Your task to perform on an android device: Search for vegetarian restaurants on Maps Image 0: 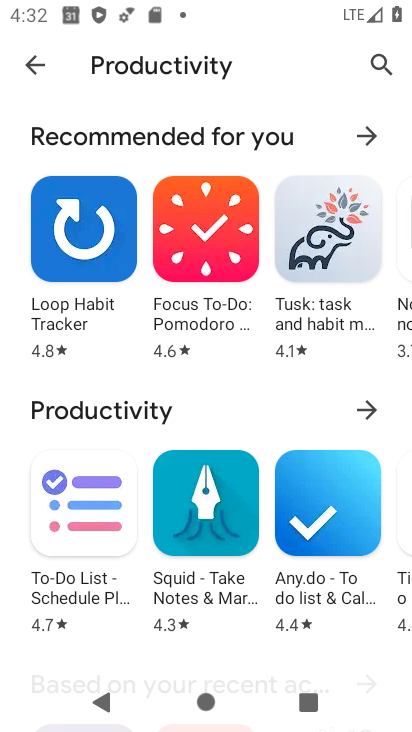
Step 0: press back button
Your task to perform on an android device: Search for vegetarian restaurants on Maps Image 1: 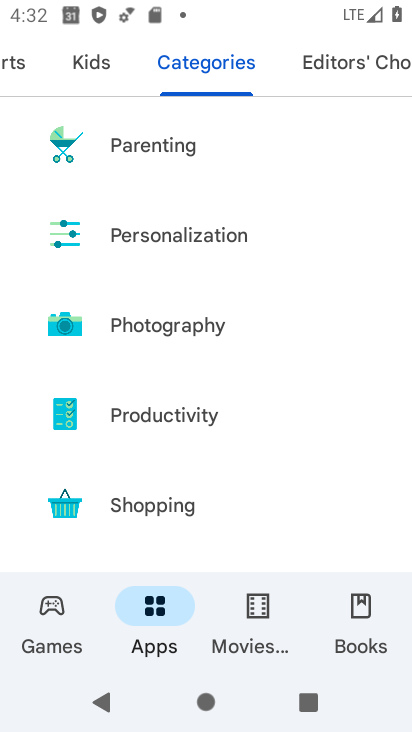
Step 1: press back button
Your task to perform on an android device: Search for vegetarian restaurants on Maps Image 2: 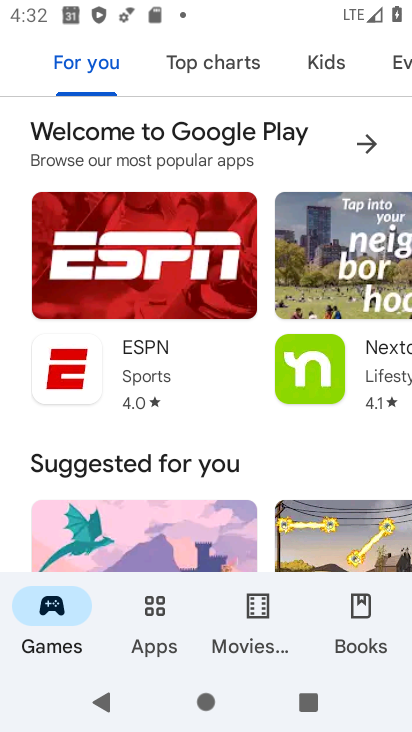
Step 2: press back button
Your task to perform on an android device: Search for vegetarian restaurants on Maps Image 3: 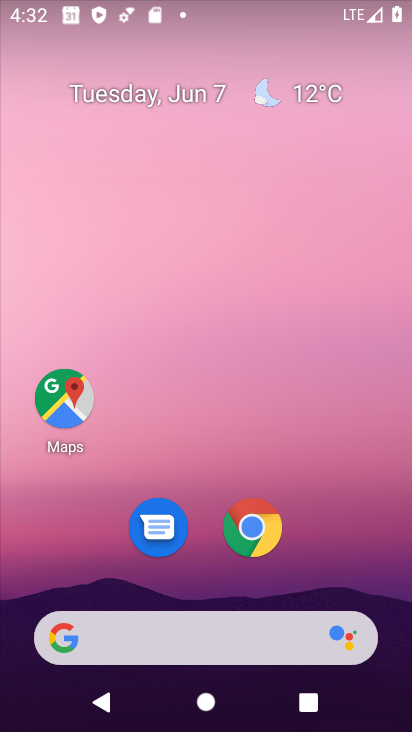
Step 3: click (63, 396)
Your task to perform on an android device: Search for vegetarian restaurants on Maps Image 4: 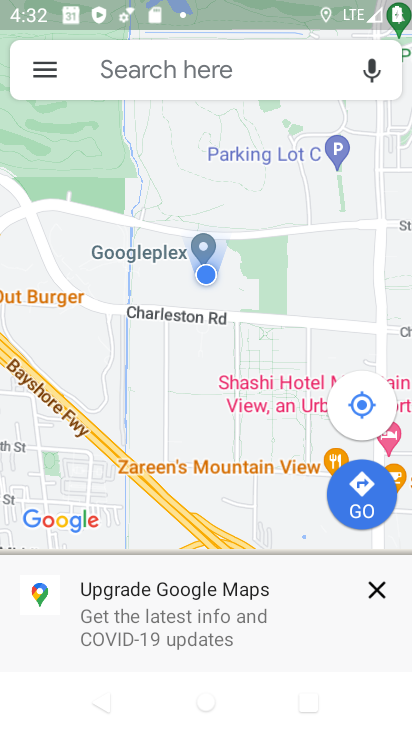
Step 4: click (153, 64)
Your task to perform on an android device: Search for vegetarian restaurants on Maps Image 5: 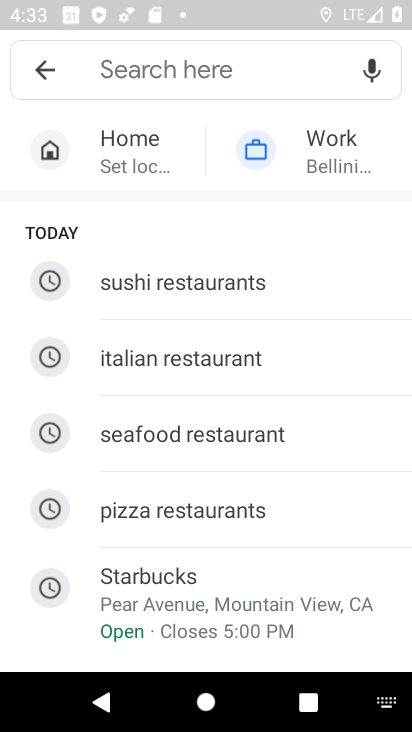
Step 5: type "vegitarian restaurants"
Your task to perform on an android device: Search for vegetarian restaurants on Maps Image 6: 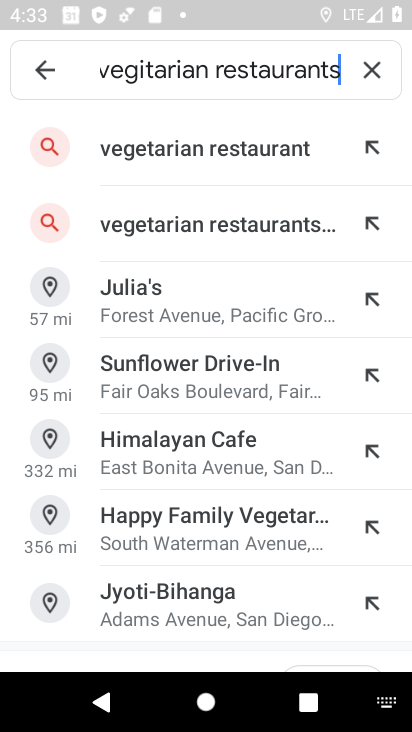
Step 6: click (177, 154)
Your task to perform on an android device: Search for vegetarian restaurants on Maps Image 7: 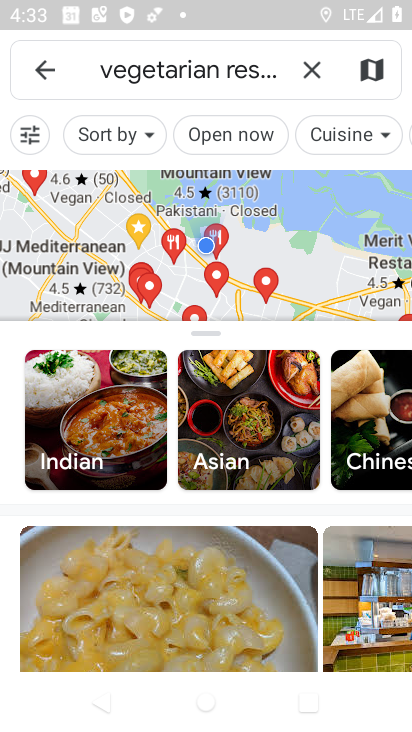
Step 7: task complete